Your task to perform on an android device: allow notifications from all sites in the chrome app Image 0: 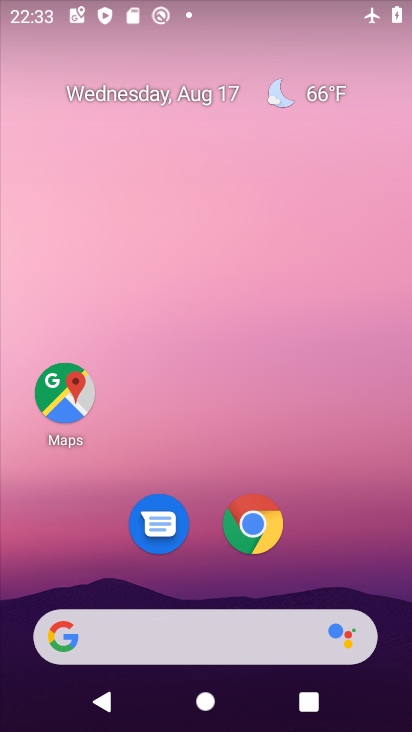
Step 0: click (259, 523)
Your task to perform on an android device: allow notifications from all sites in the chrome app Image 1: 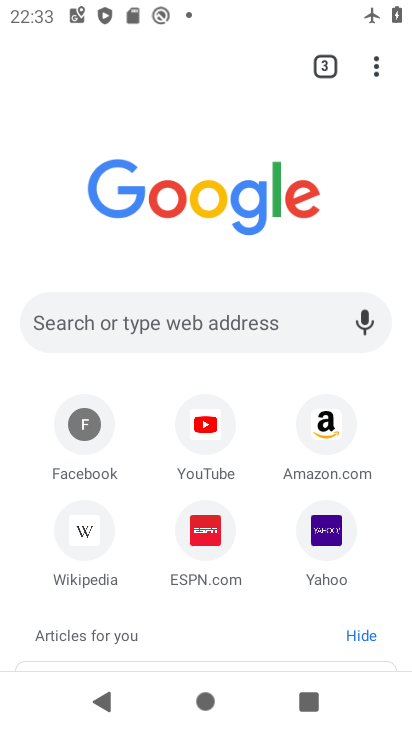
Step 1: click (374, 75)
Your task to perform on an android device: allow notifications from all sites in the chrome app Image 2: 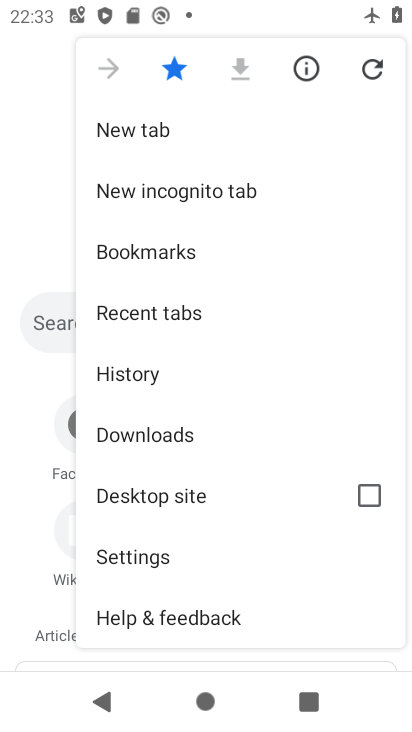
Step 2: click (184, 549)
Your task to perform on an android device: allow notifications from all sites in the chrome app Image 3: 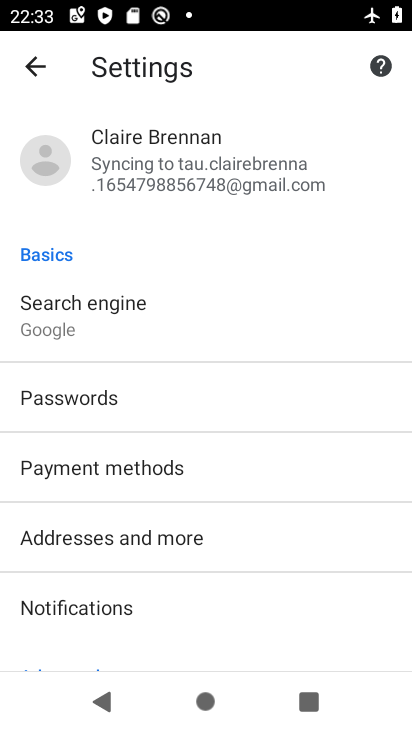
Step 3: drag from (242, 448) to (246, 253)
Your task to perform on an android device: allow notifications from all sites in the chrome app Image 4: 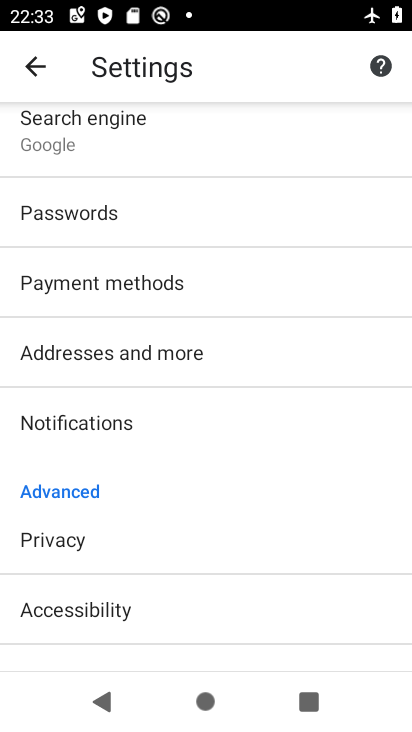
Step 4: click (213, 422)
Your task to perform on an android device: allow notifications from all sites in the chrome app Image 5: 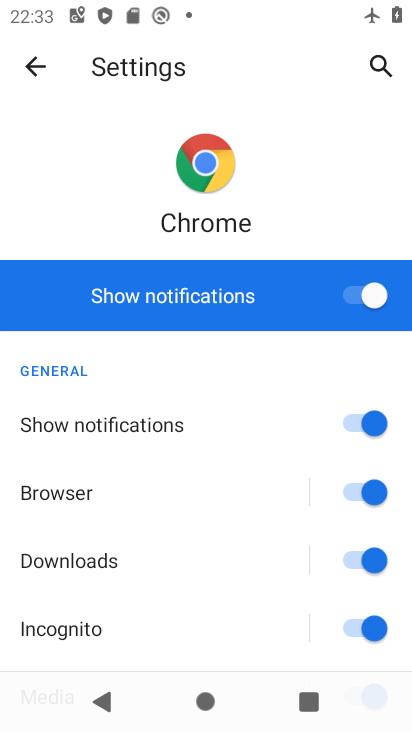
Step 5: task complete